Your task to perform on an android device: What is the recent news? Image 0: 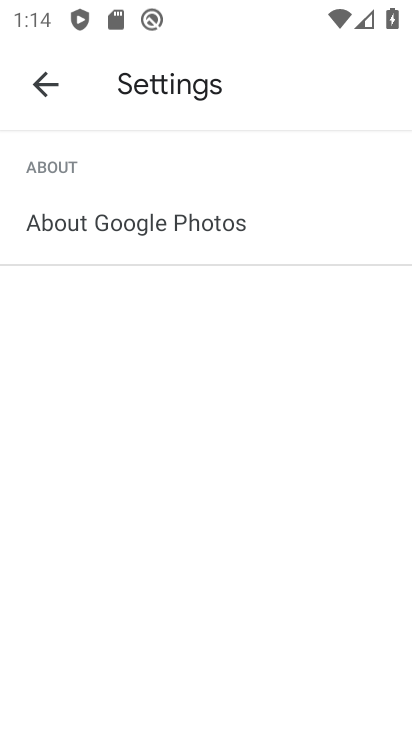
Step 0: press home button
Your task to perform on an android device: What is the recent news? Image 1: 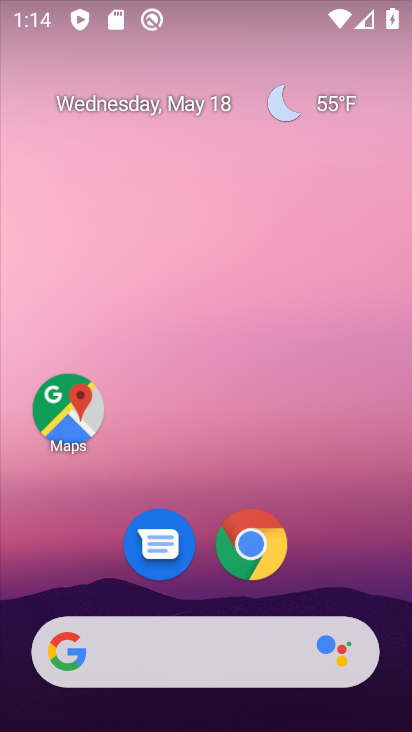
Step 1: click (122, 647)
Your task to perform on an android device: What is the recent news? Image 2: 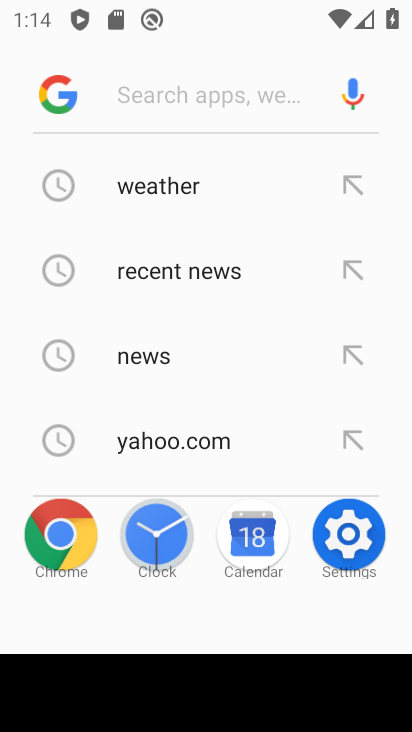
Step 2: click (186, 263)
Your task to perform on an android device: What is the recent news? Image 3: 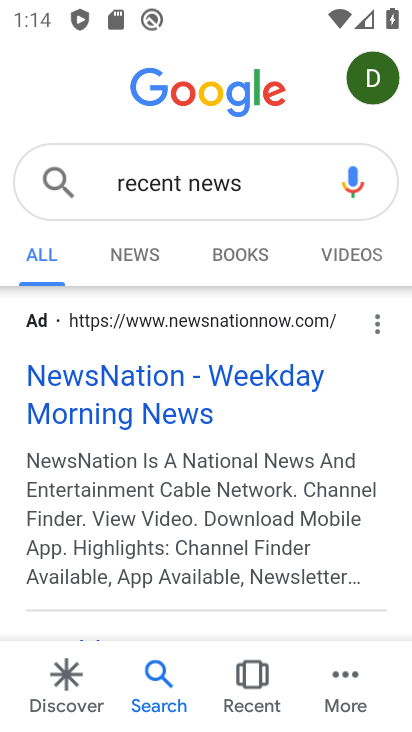
Step 3: click (133, 269)
Your task to perform on an android device: What is the recent news? Image 4: 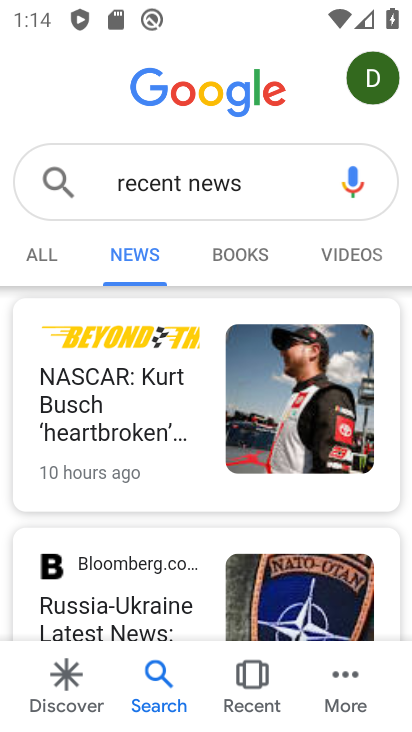
Step 4: task complete